Your task to perform on an android device: What's the weather going to be this weekend? Image 0: 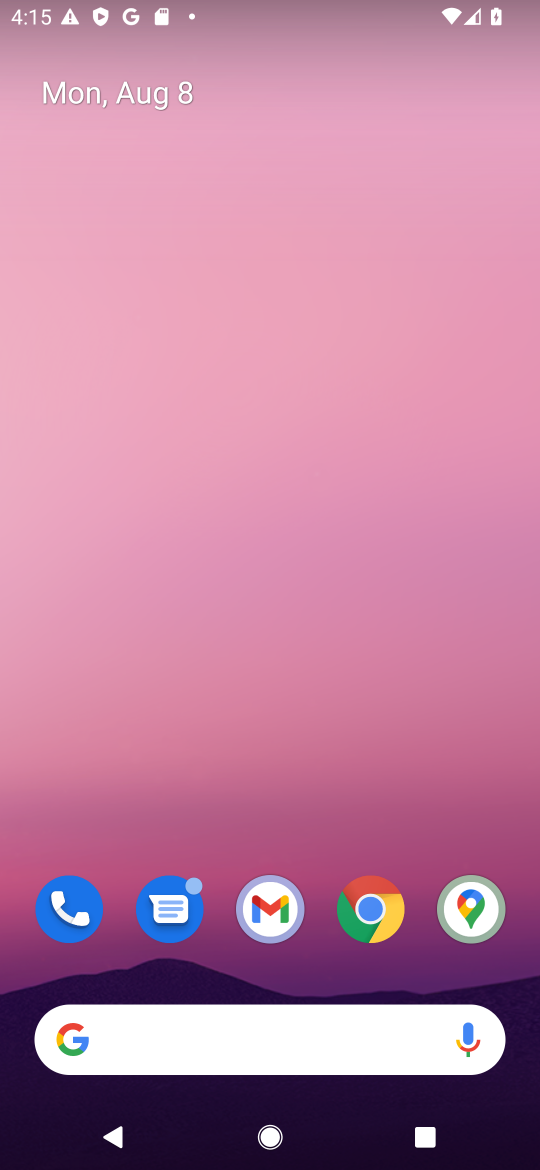
Step 0: click (194, 1036)
Your task to perform on an android device: What's the weather going to be this weekend? Image 1: 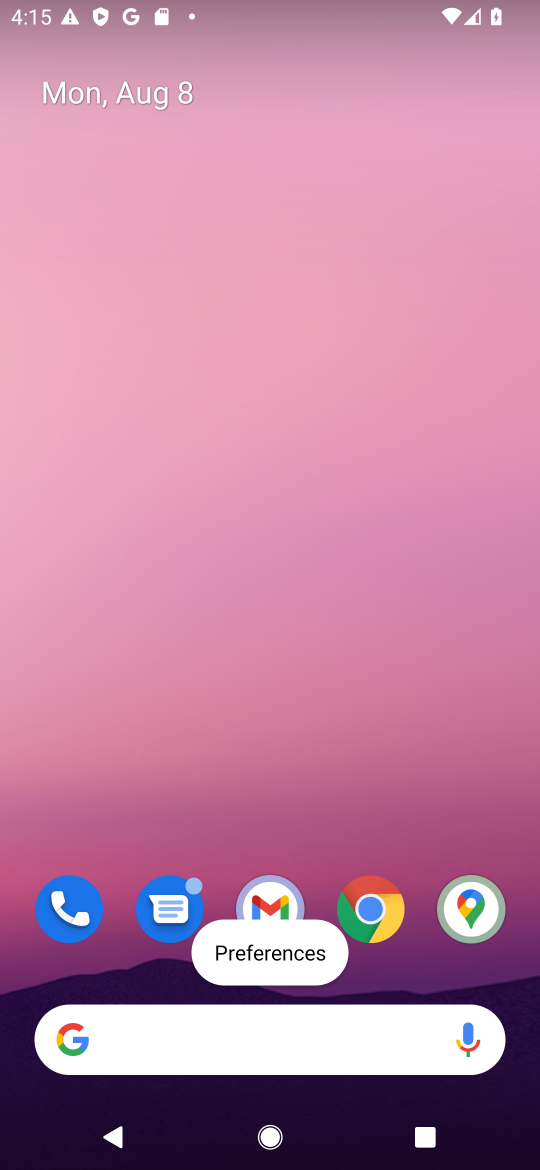
Step 1: click (194, 1040)
Your task to perform on an android device: What's the weather going to be this weekend? Image 2: 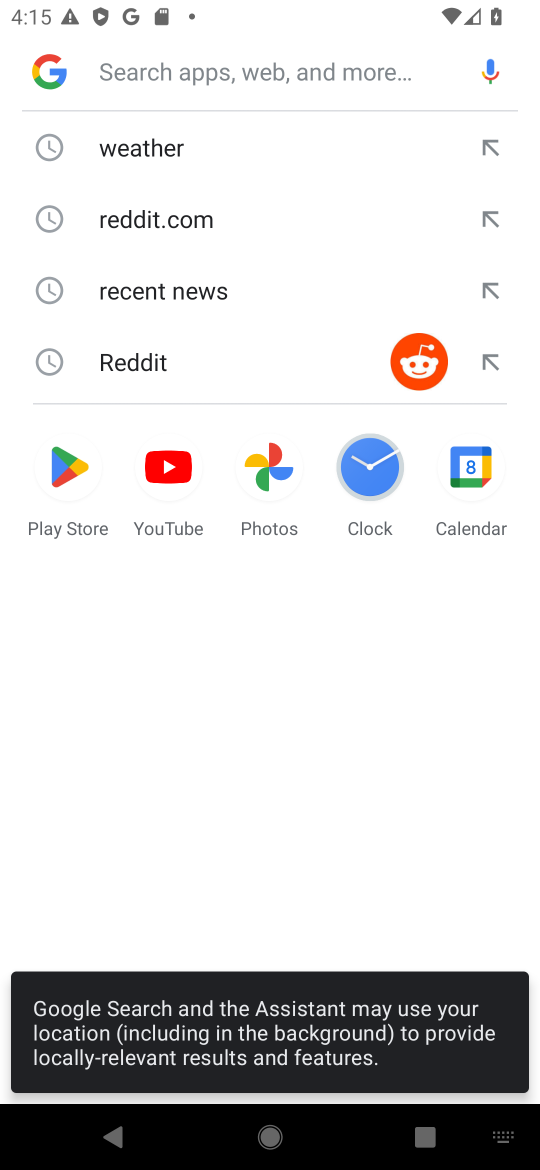
Step 2: click (148, 150)
Your task to perform on an android device: What's the weather going to be this weekend? Image 3: 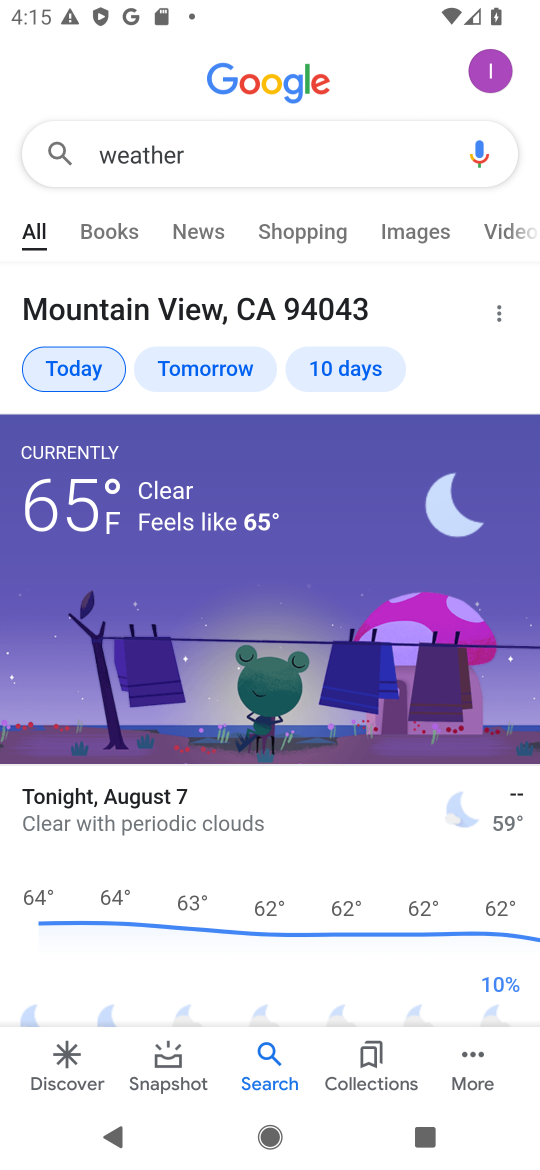
Step 3: click (348, 363)
Your task to perform on an android device: What's the weather going to be this weekend? Image 4: 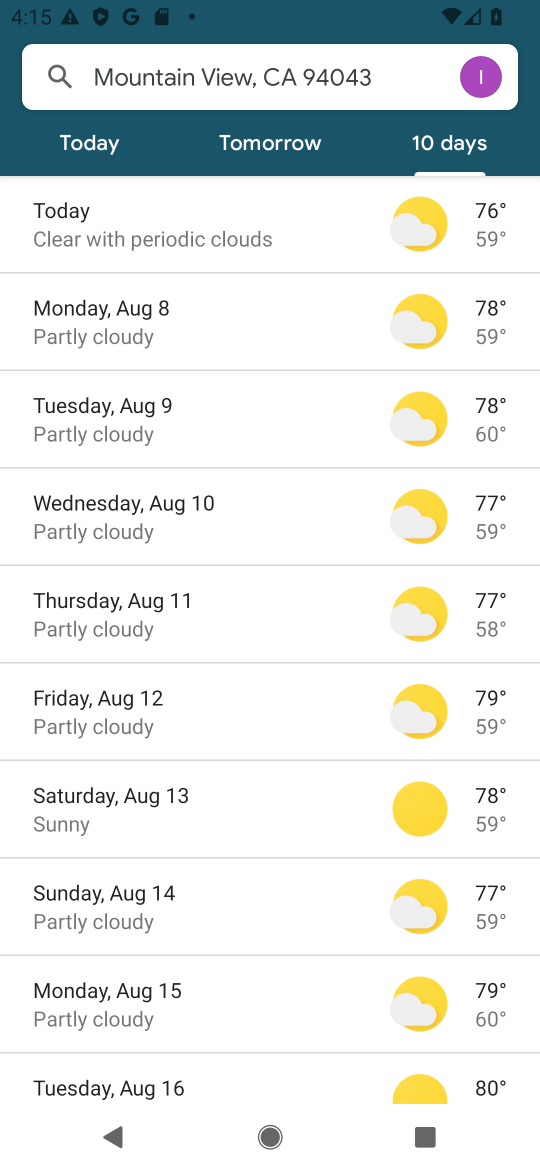
Step 4: click (185, 813)
Your task to perform on an android device: What's the weather going to be this weekend? Image 5: 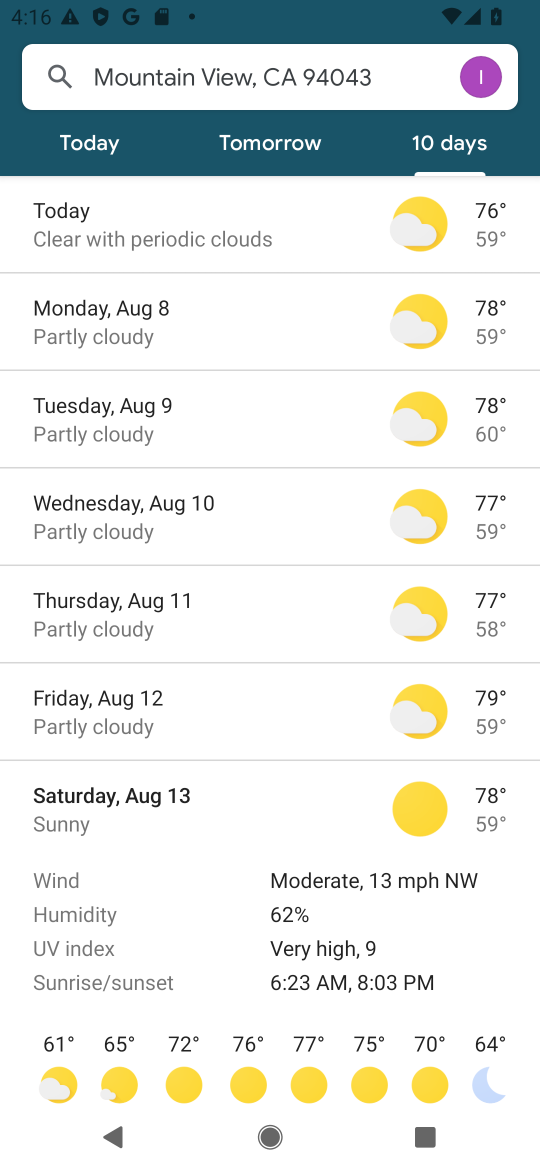
Step 5: task complete